Your task to perform on an android device: Open settings Image 0: 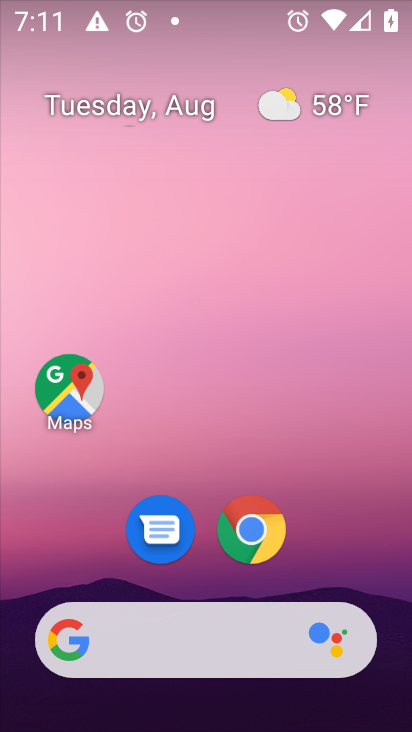
Step 0: press home button
Your task to perform on an android device: Open settings Image 1: 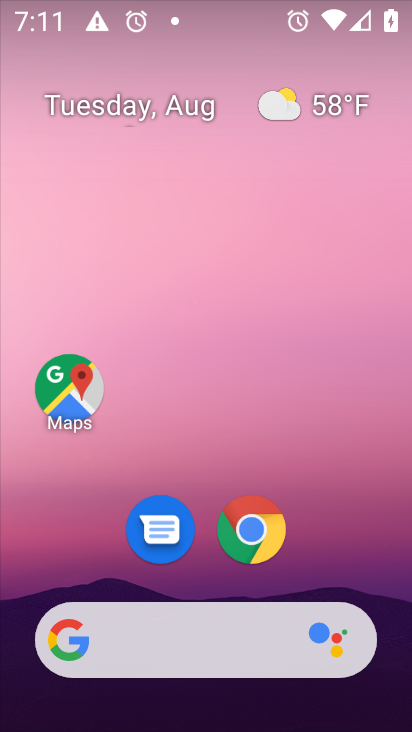
Step 1: drag from (208, 572) to (219, 94)
Your task to perform on an android device: Open settings Image 2: 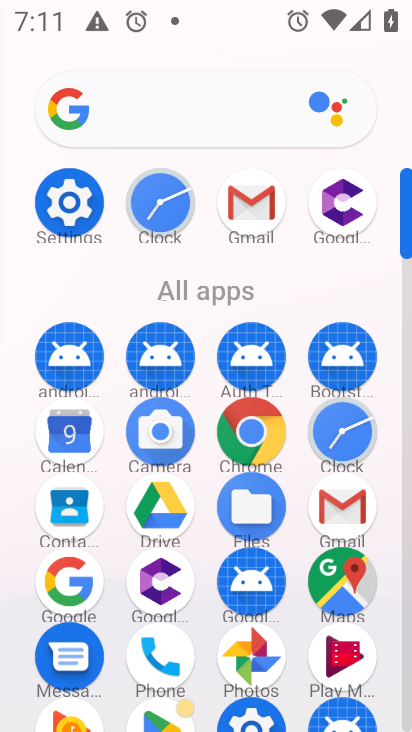
Step 2: click (71, 206)
Your task to perform on an android device: Open settings Image 3: 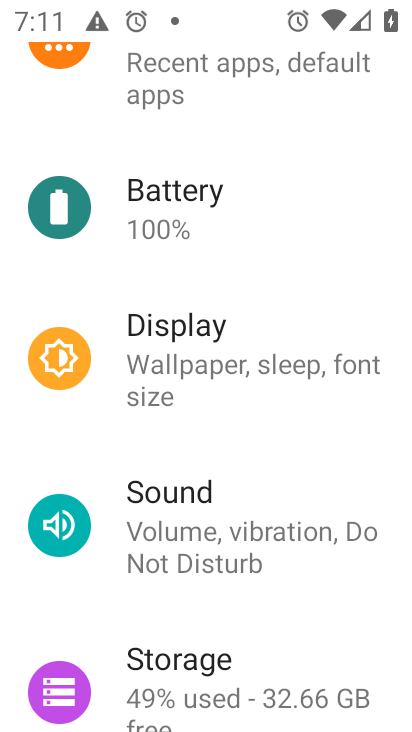
Step 3: task complete